Your task to perform on an android device: turn on location history Image 0: 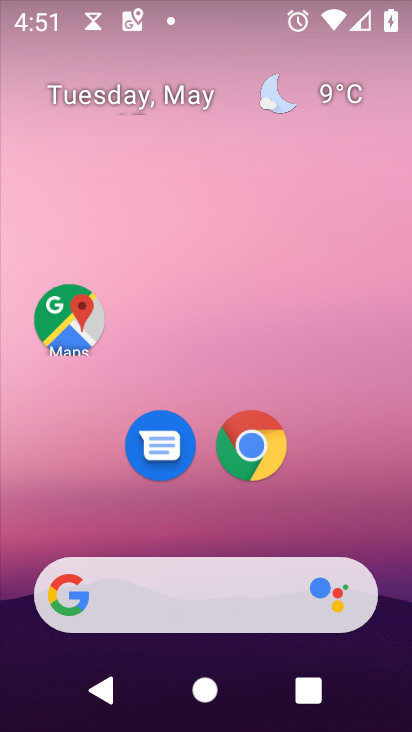
Step 0: drag from (292, 515) to (318, 1)
Your task to perform on an android device: turn on location history Image 1: 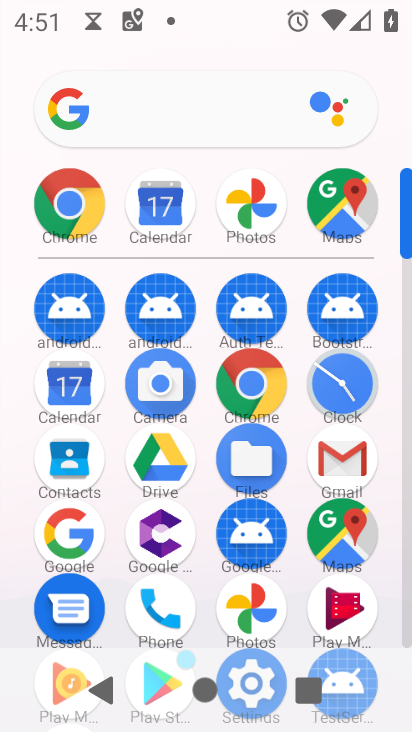
Step 1: drag from (286, 633) to (294, 363)
Your task to perform on an android device: turn on location history Image 2: 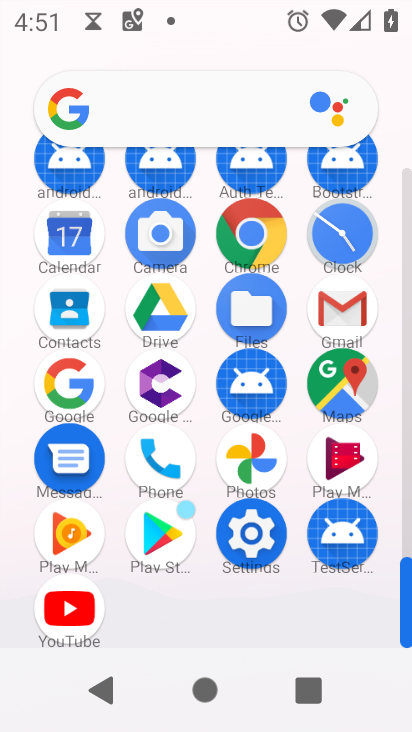
Step 2: click (261, 531)
Your task to perform on an android device: turn on location history Image 3: 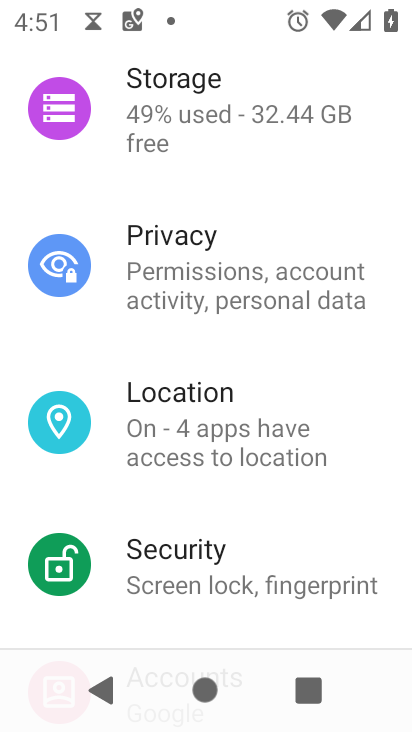
Step 3: click (236, 437)
Your task to perform on an android device: turn on location history Image 4: 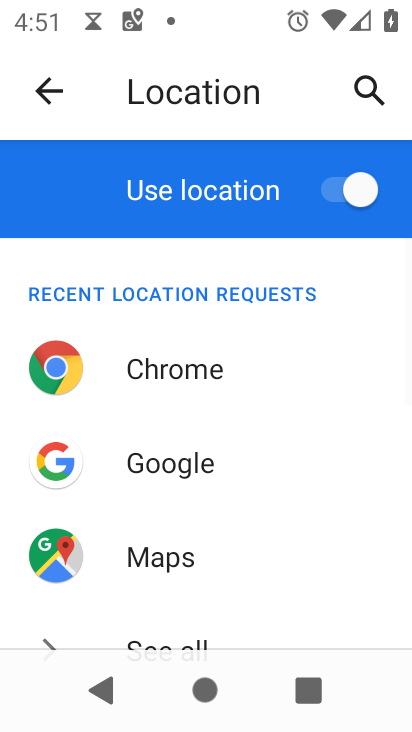
Step 4: drag from (255, 614) to (232, 119)
Your task to perform on an android device: turn on location history Image 5: 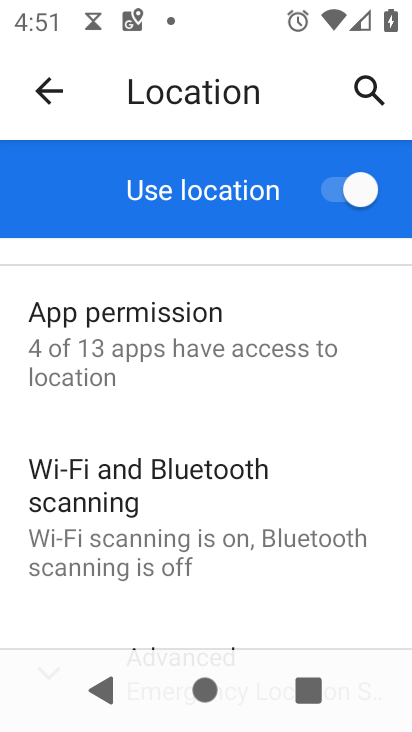
Step 5: drag from (257, 622) to (250, 248)
Your task to perform on an android device: turn on location history Image 6: 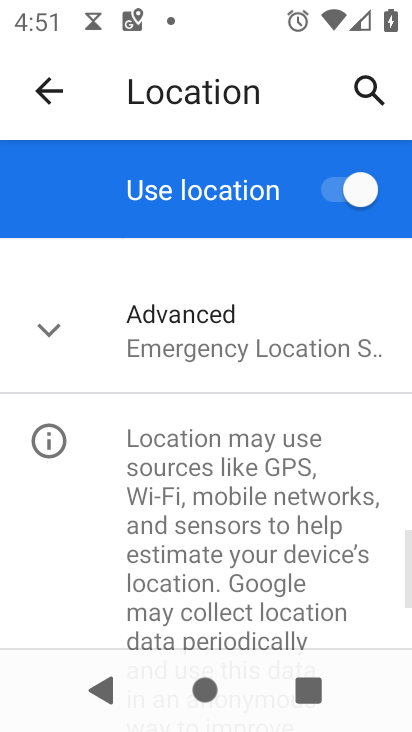
Step 6: drag from (289, 585) to (271, 254)
Your task to perform on an android device: turn on location history Image 7: 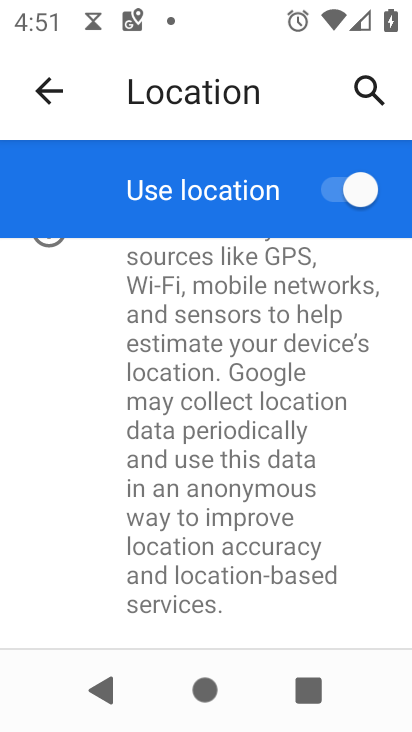
Step 7: drag from (297, 304) to (313, 683)
Your task to perform on an android device: turn on location history Image 8: 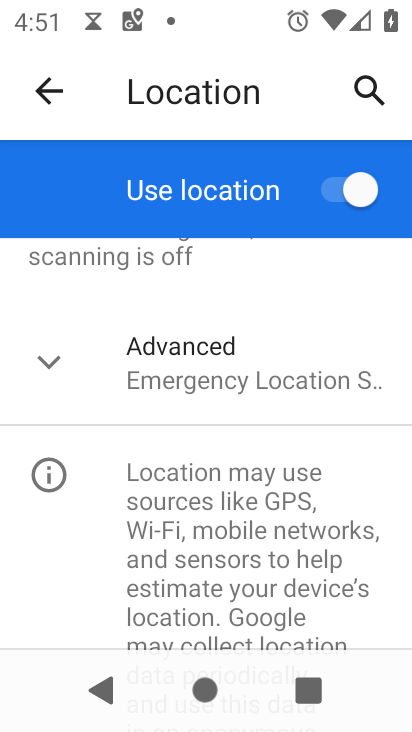
Step 8: drag from (239, 431) to (226, 658)
Your task to perform on an android device: turn on location history Image 9: 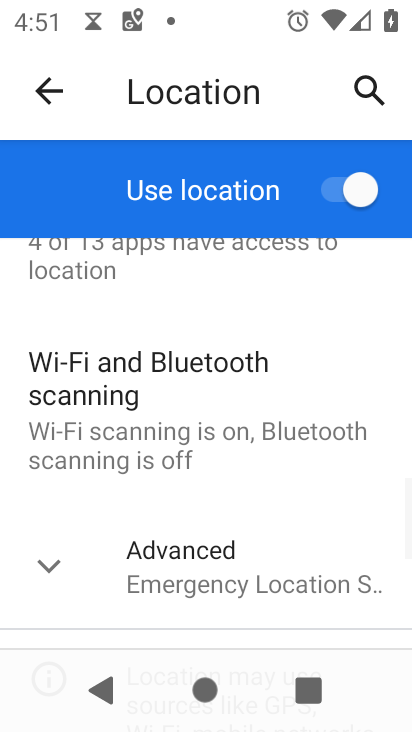
Step 9: click (199, 557)
Your task to perform on an android device: turn on location history Image 10: 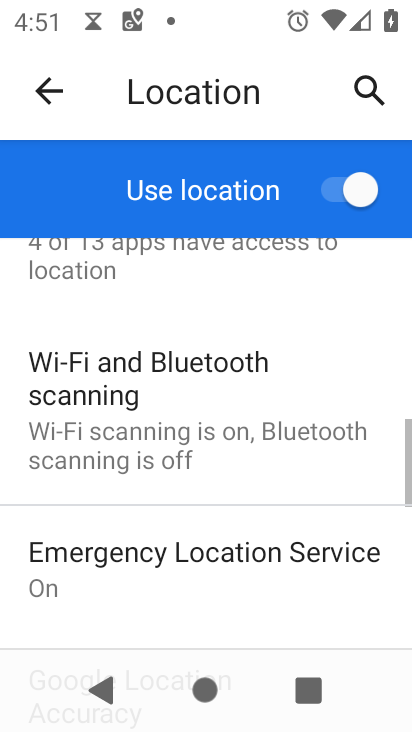
Step 10: drag from (226, 638) to (225, 203)
Your task to perform on an android device: turn on location history Image 11: 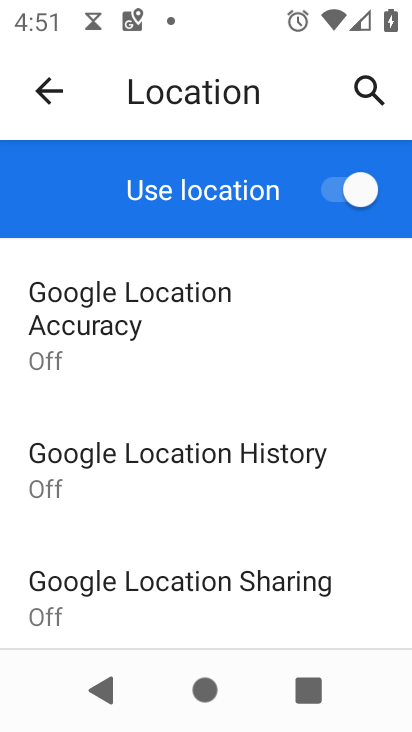
Step 11: click (237, 472)
Your task to perform on an android device: turn on location history Image 12: 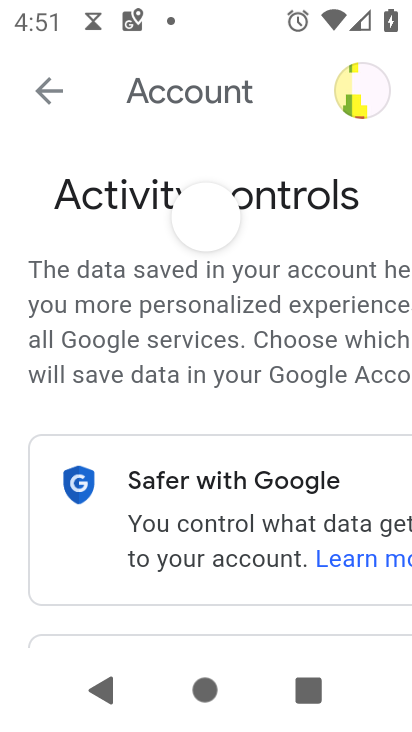
Step 12: task complete